Your task to perform on an android device: toggle javascript in the chrome app Image 0: 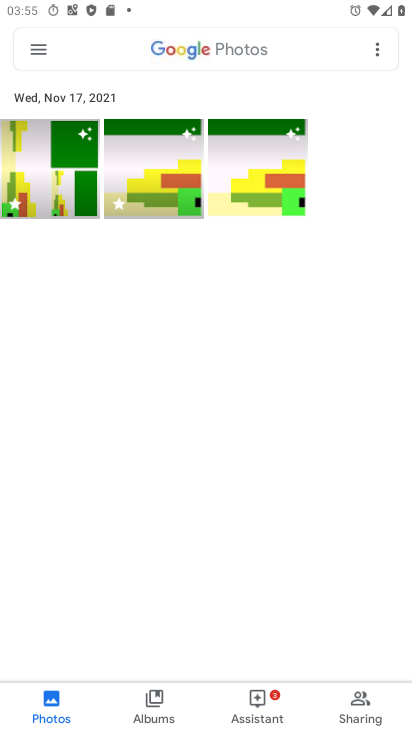
Step 0: press home button
Your task to perform on an android device: toggle javascript in the chrome app Image 1: 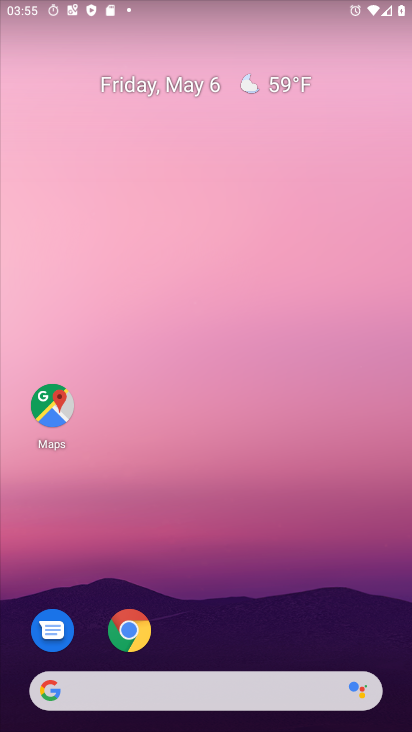
Step 1: click (143, 631)
Your task to perform on an android device: toggle javascript in the chrome app Image 2: 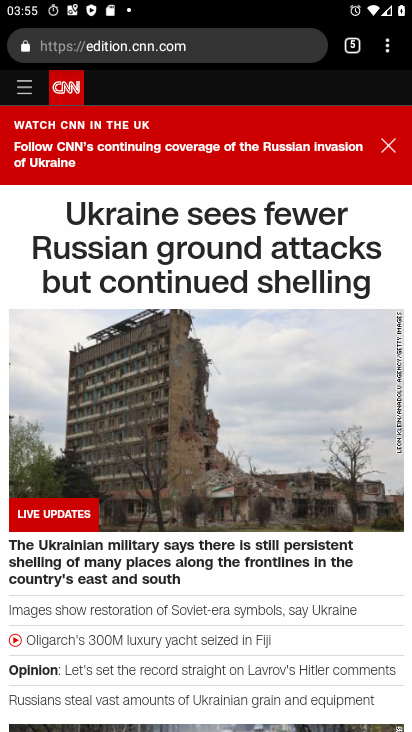
Step 2: drag from (388, 50) to (263, 493)
Your task to perform on an android device: toggle javascript in the chrome app Image 3: 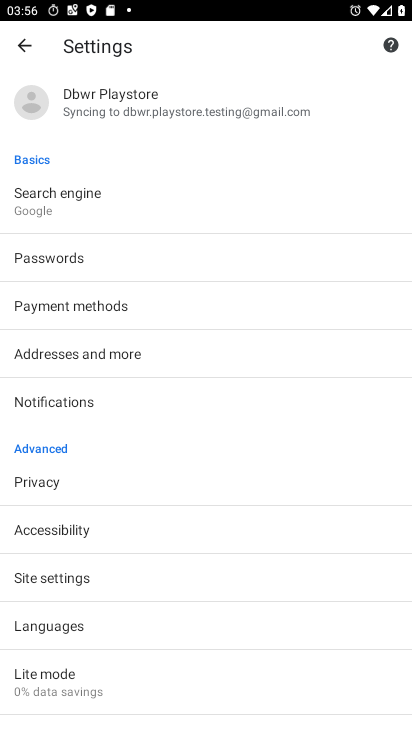
Step 3: click (104, 586)
Your task to perform on an android device: toggle javascript in the chrome app Image 4: 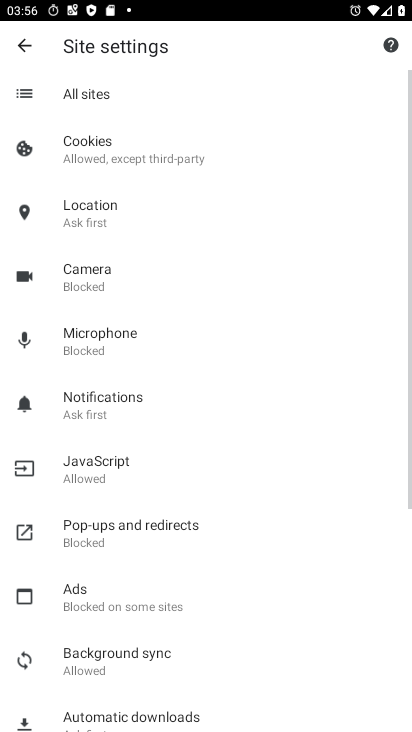
Step 4: click (154, 463)
Your task to perform on an android device: toggle javascript in the chrome app Image 5: 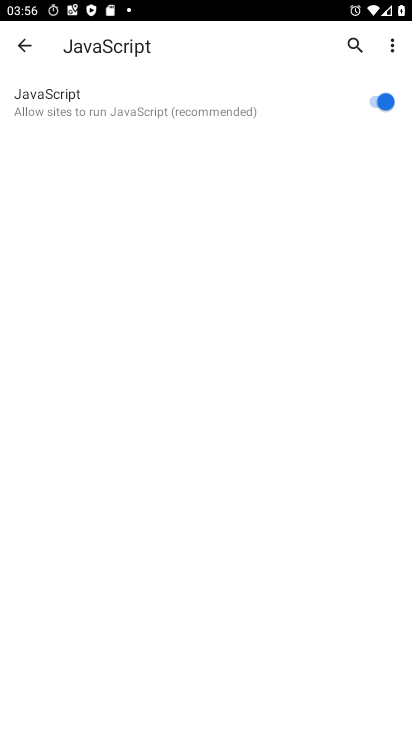
Step 5: click (366, 101)
Your task to perform on an android device: toggle javascript in the chrome app Image 6: 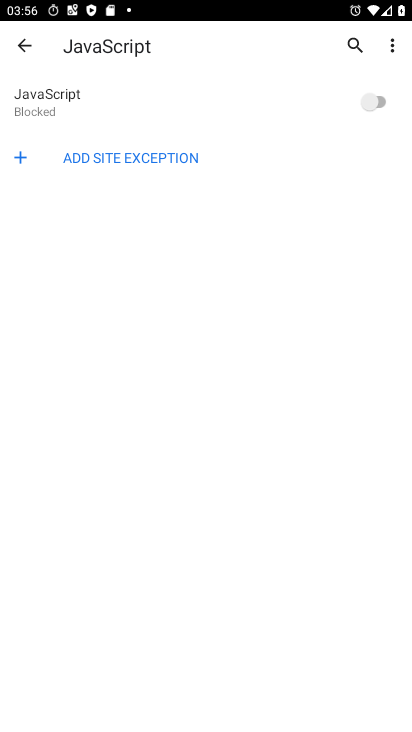
Step 6: task complete